Your task to perform on an android device: Open Wikipedia Image 0: 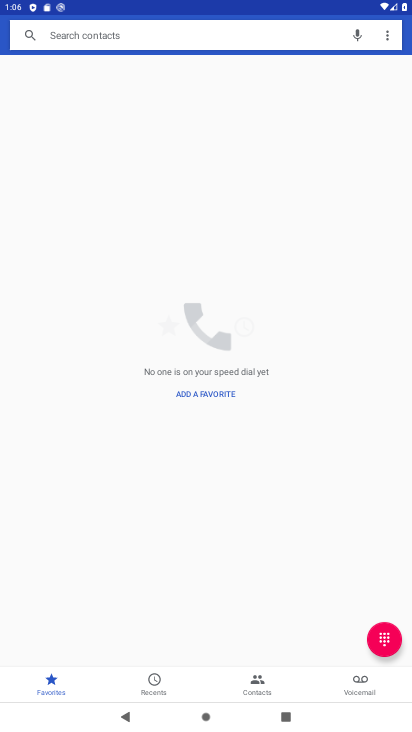
Step 0: press home button
Your task to perform on an android device: Open Wikipedia Image 1: 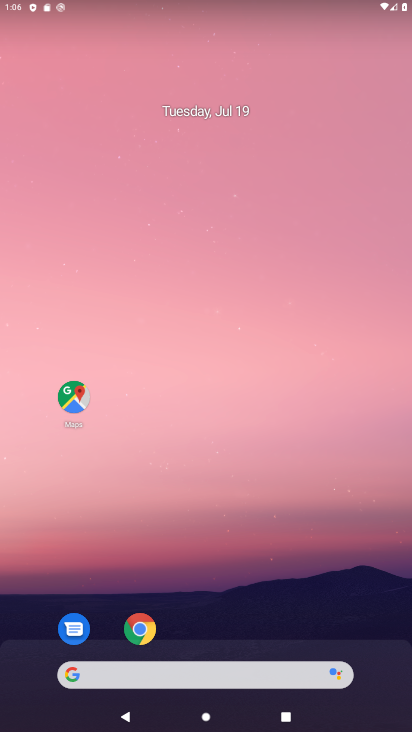
Step 1: click (141, 619)
Your task to perform on an android device: Open Wikipedia Image 2: 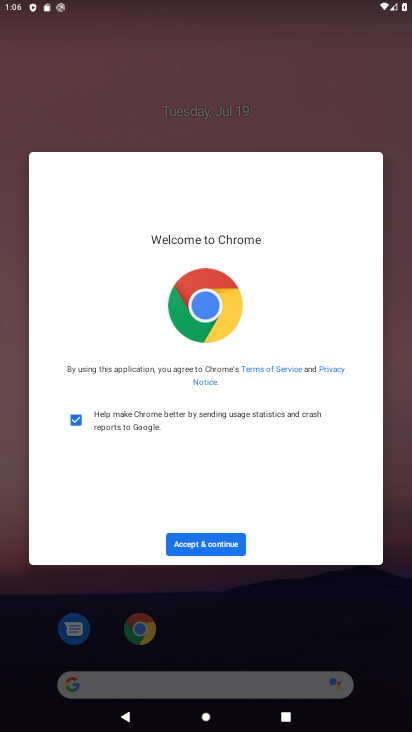
Step 2: click (207, 549)
Your task to perform on an android device: Open Wikipedia Image 3: 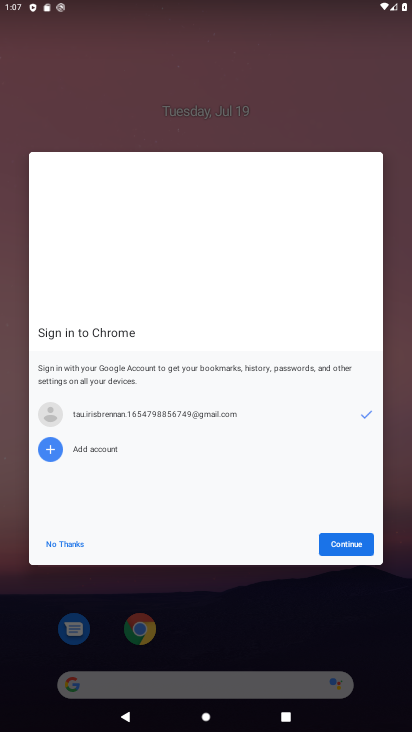
Step 3: click (330, 541)
Your task to perform on an android device: Open Wikipedia Image 4: 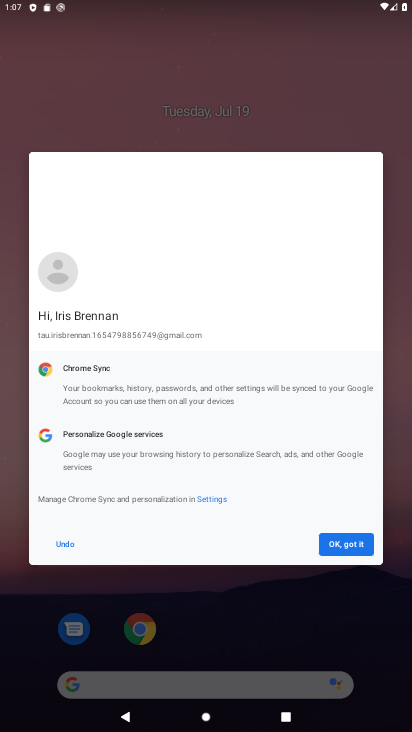
Step 4: click (345, 543)
Your task to perform on an android device: Open Wikipedia Image 5: 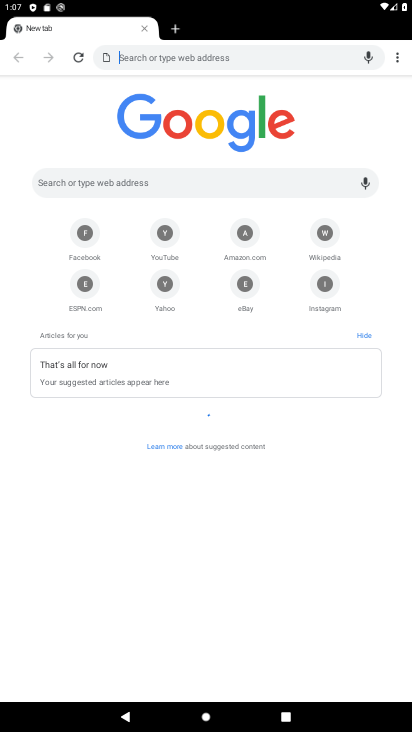
Step 5: click (326, 234)
Your task to perform on an android device: Open Wikipedia Image 6: 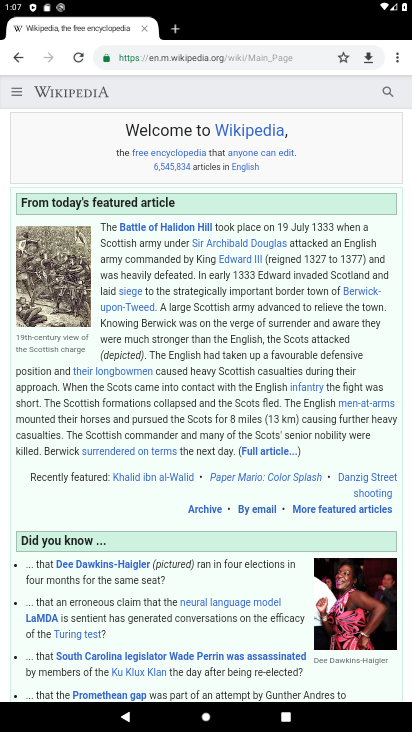
Step 6: task complete